Your task to perform on an android device: Open the calendar and show me this week's events Image 0: 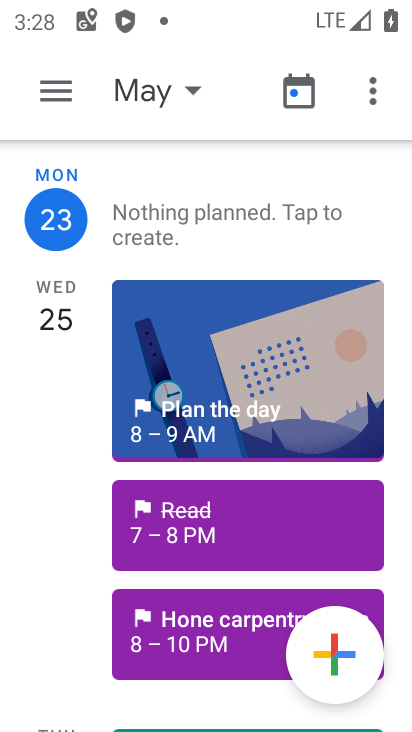
Step 0: click (184, 91)
Your task to perform on an android device: Open the calendar and show me this week's events Image 1: 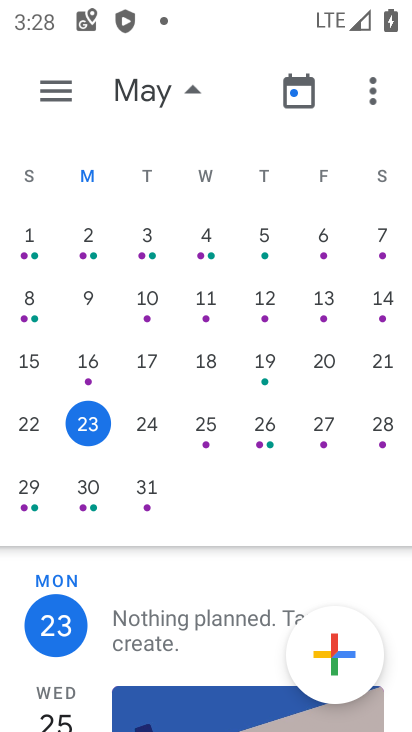
Step 1: click (92, 428)
Your task to perform on an android device: Open the calendar and show me this week's events Image 2: 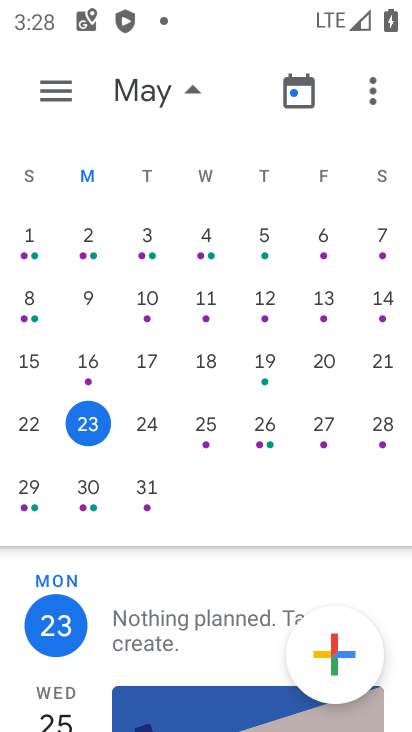
Step 2: drag from (195, 668) to (289, 140)
Your task to perform on an android device: Open the calendar and show me this week's events Image 3: 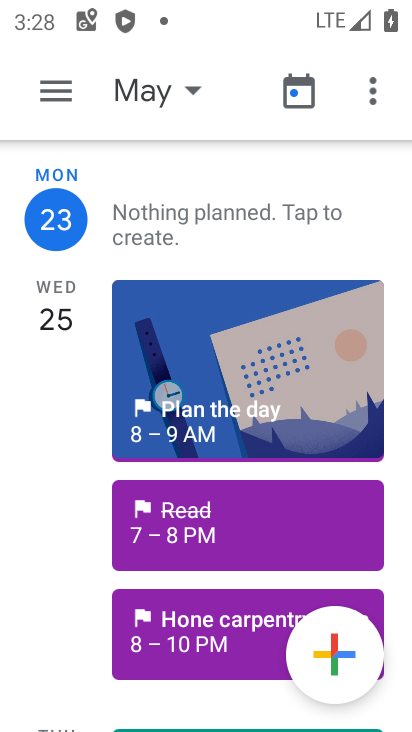
Step 3: click (170, 628)
Your task to perform on an android device: Open the calendar and show me this week's events Image 4: 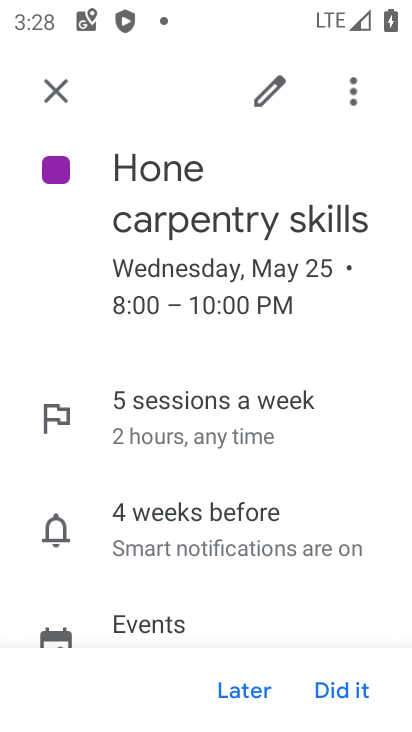
Step 4: task complete